Your task to perform on an android device: Go to settings Image 0: 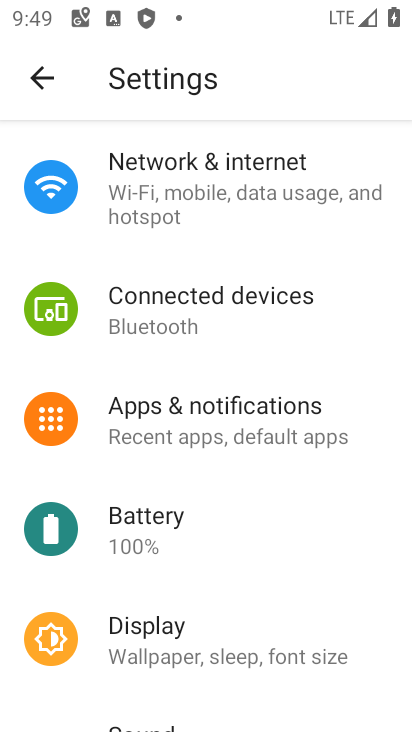
Step 0: drag from (264, 617) to (292, 280)
Your task to perform on an android device: Go to settings Image 1: 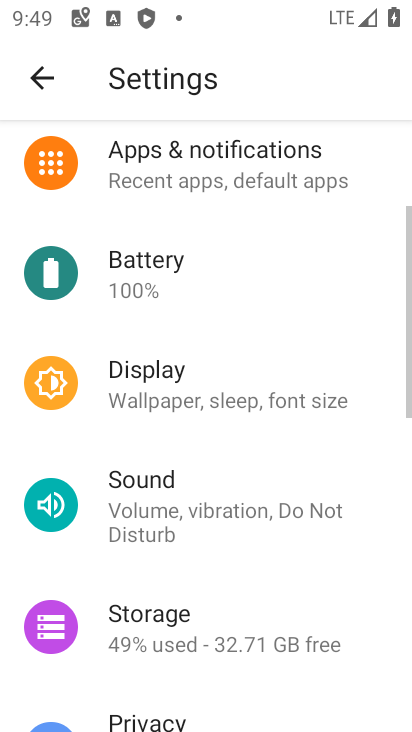
Step 1: task complete